Your task to perform on an android device: turn off notifications in google photos Image 0: 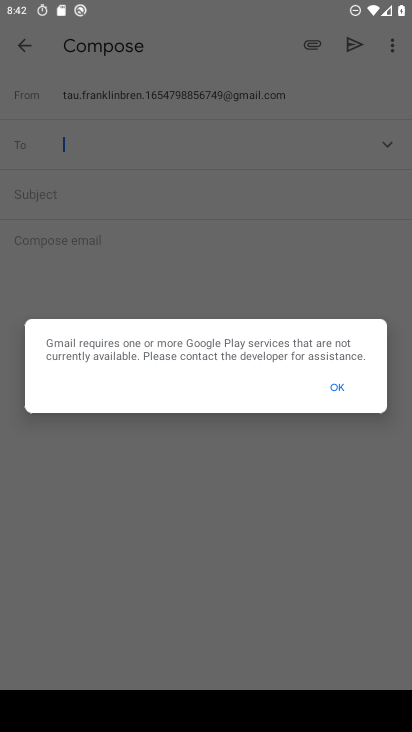
Step 0: press home button
Your task to perform on an android device: turn off notifications in google photos Image 1: 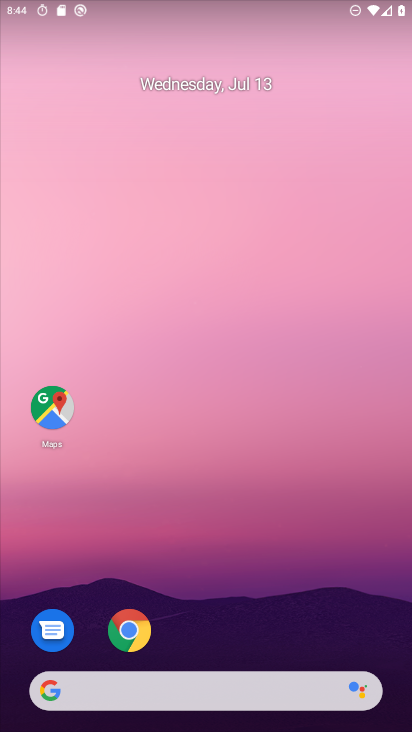
Step 1: drag from (381, 656) to (229, 24)
Your task to perform on an android device: turn off notifications in google photos Image 2: 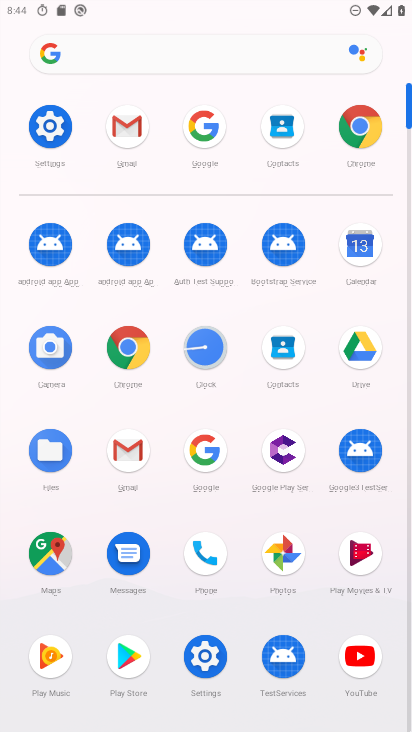
Step 2: click (287, 561)
Your task to perform on an android device: turn off notifications in google photos Image 3: 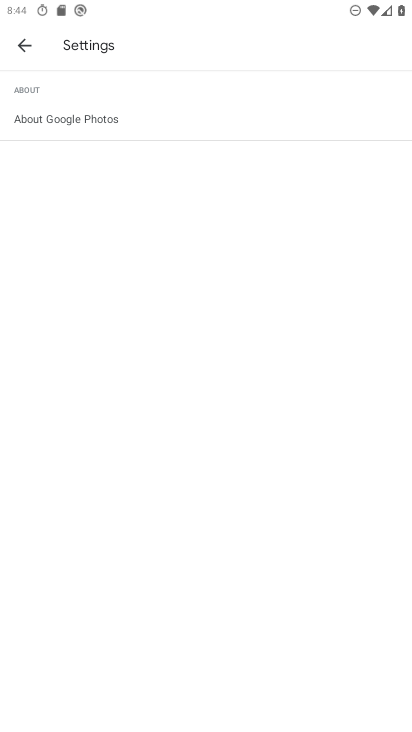
Step 3: press back button
Your task to perform on an android device: turn off notifications in google photos Image 4: 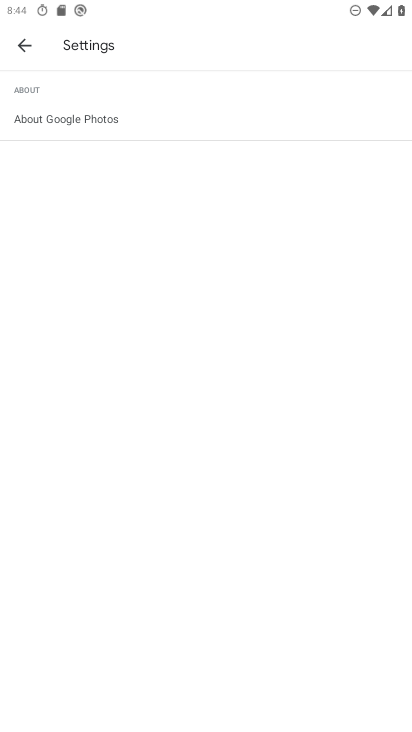
Step 4: press back button
Your task to perform on an android device: turn off notifications in google photos Image 5: 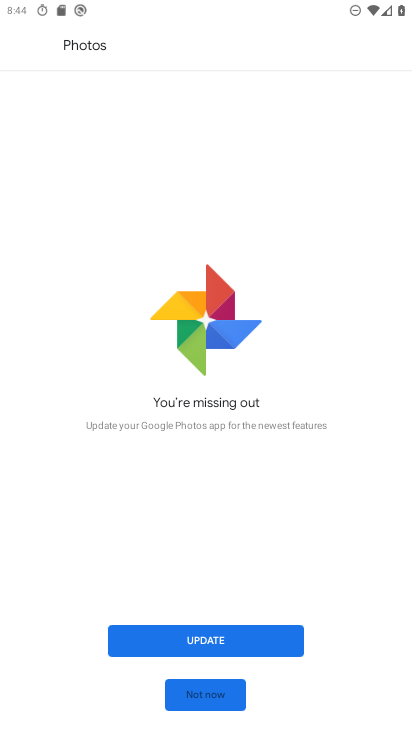
Step 5: click (347, 399)
Your task to perform on an android device: turn off notifications in google photos Image 6: 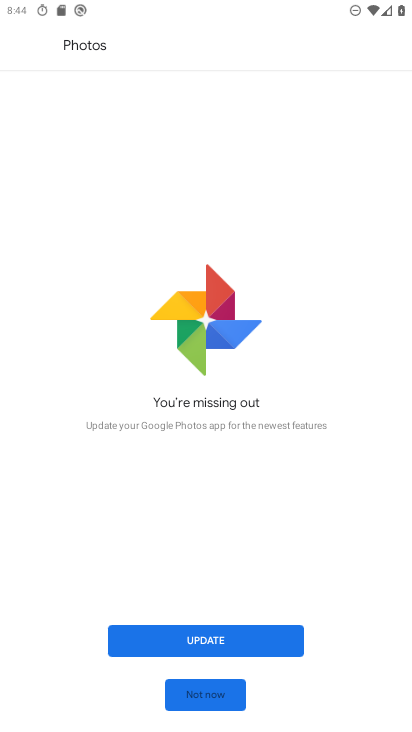
Step 6: click (214, 647)
Your task to perform on an android device: turn off notifications in google photos Image 7: 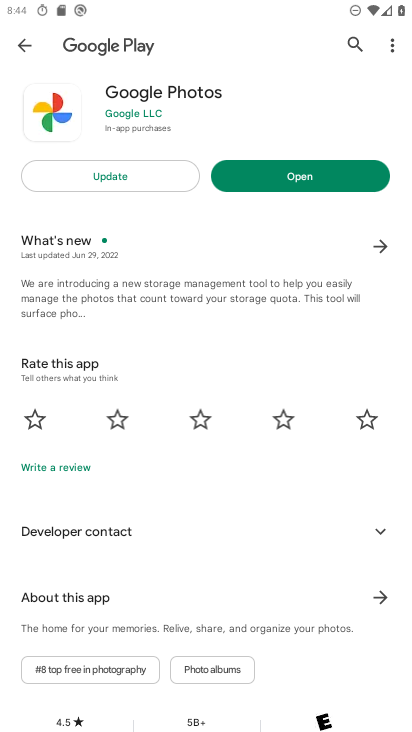
Step 7: click (43, 165)
Your task to perform on an android device: turn off notifications in google photos Image 8: 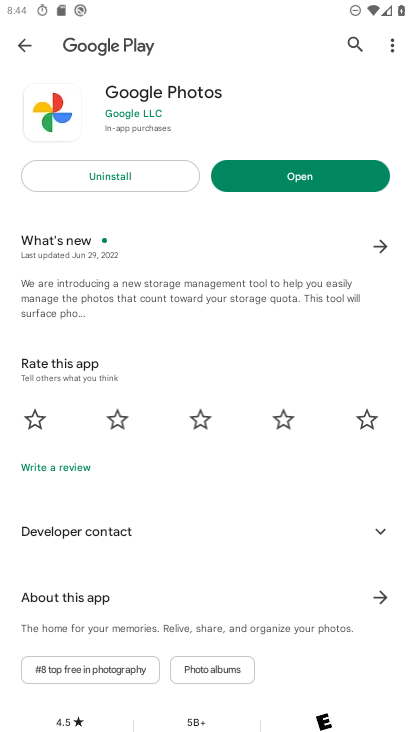
Step 8: click (274, 170)
Your task to perform on an android device: turn off notifications in google photos Image 9: 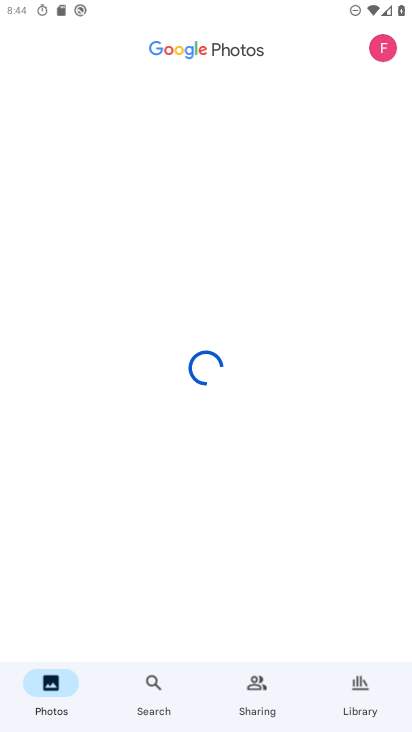
Step 9: click (383, 48)
Your task to perform on an android device: turn off notifications in google photos Image 10: 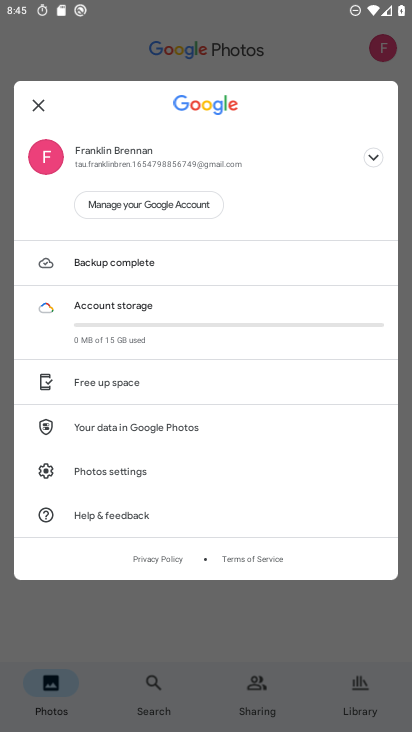
Step 10: click (129, 469)
Your task to perform on an android device: turn off notifications in google photos Image 11: 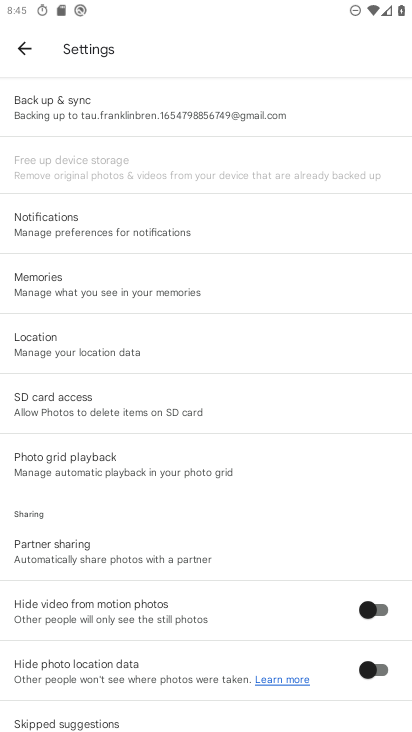
Step 11: click (187, 232)
Your task to perform on an android device: turn off notifications in google photos Image 12: 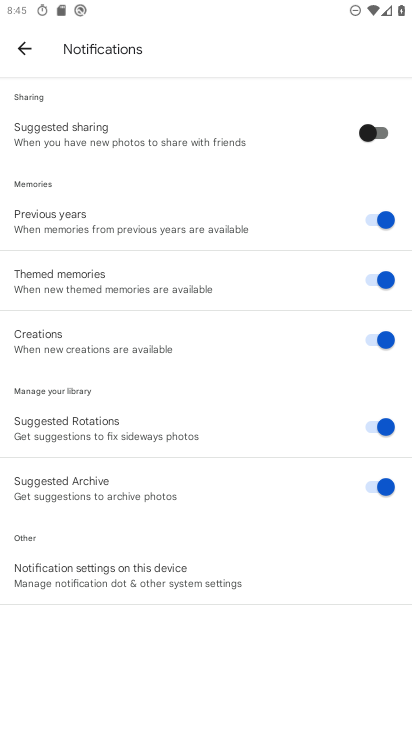
Step 12: click (371, 124)
Your task to perform on an android device: turn off notifications in google photos Image 13: 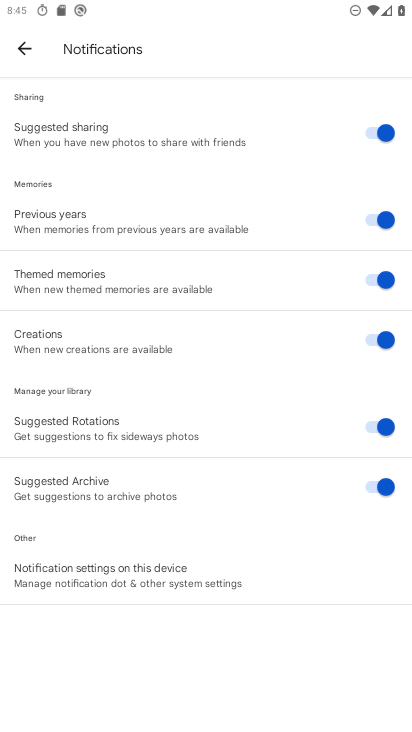
Step 13: click (371, 124)
Your task to perform on an android device: turn off notifications in google photos Image 14: 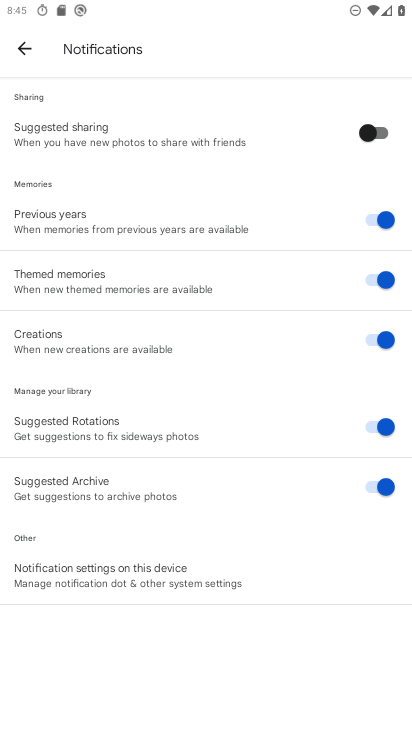
Step 14: task complete